Your task to perform on an android device: Add macbook air to the cart on walmart Image 0: 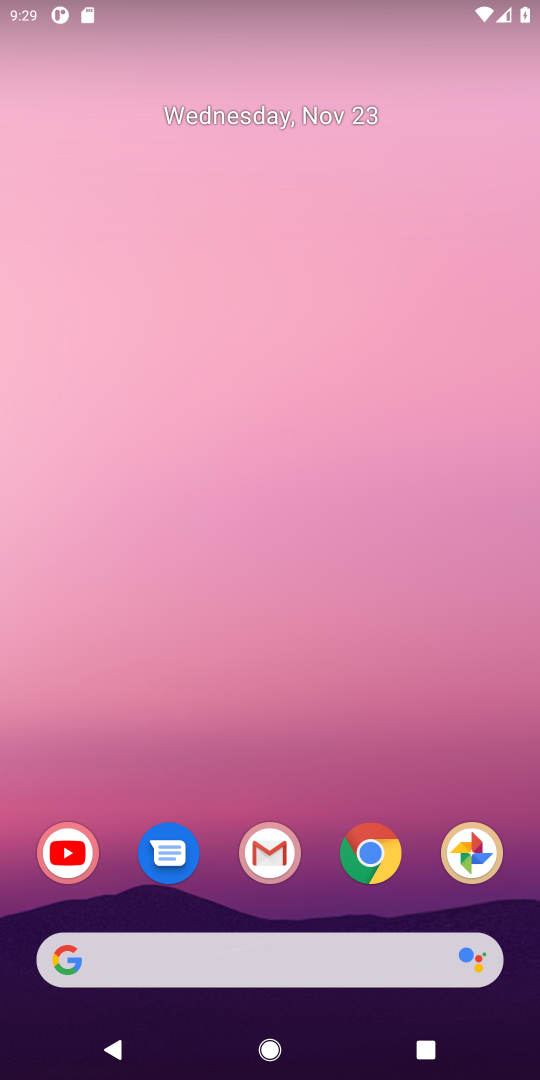
Step 0: click (373, 856)
Your task to perform on an android device: Add macbook air to the cart on walmart Image 1: 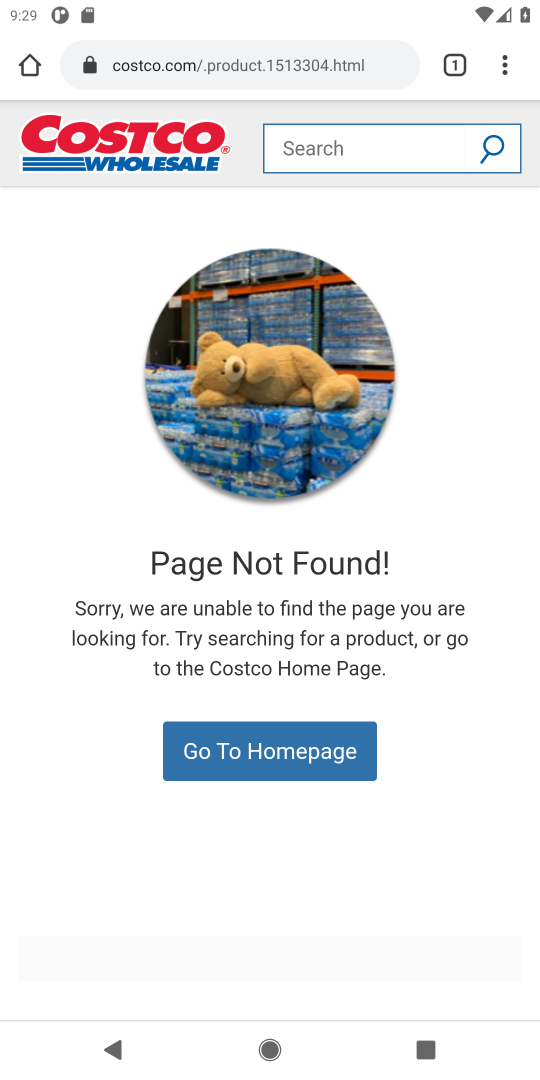
Step 1: click (178, 58)
Your task to perform on an android device: Add macbook air to the cart on walmart Image 2: 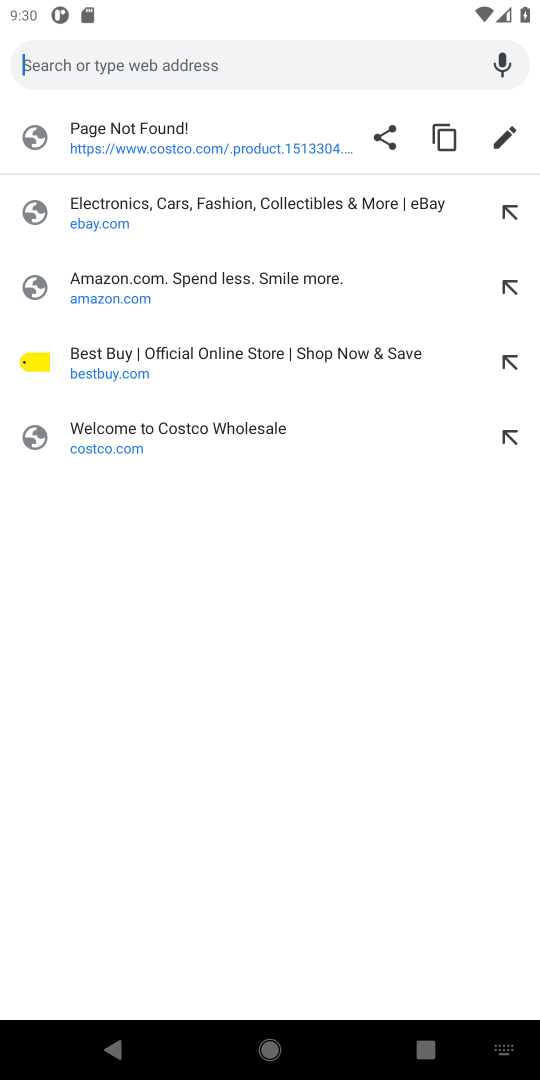
Step 2: click (60, 62)
Your task to perform on an android device: Add macbook air to the cart on walmart Image 3: 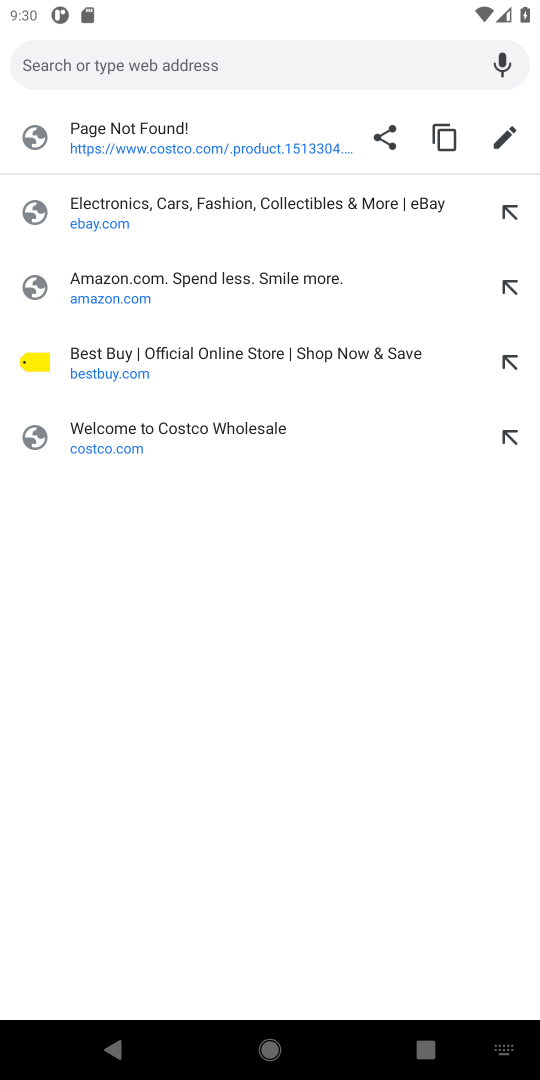
Step 3: type "walmart.com"
Your task to perform on an android device: Add macbook air to the cart on walmart Image 4: 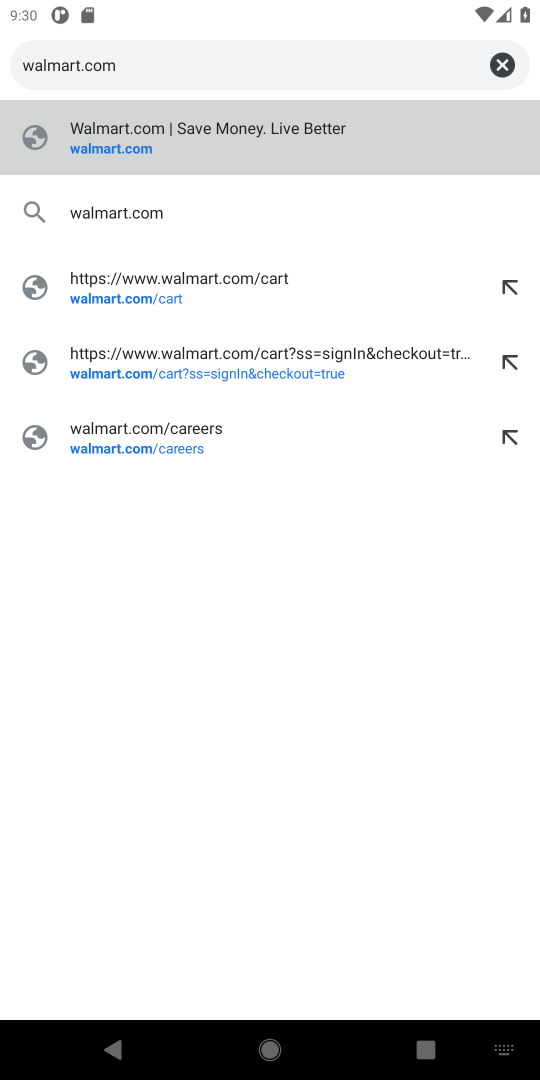
Step 4: click (96, 145)
Your task to perform on an android device: Add macbook air to the cart on walmart Image 5: 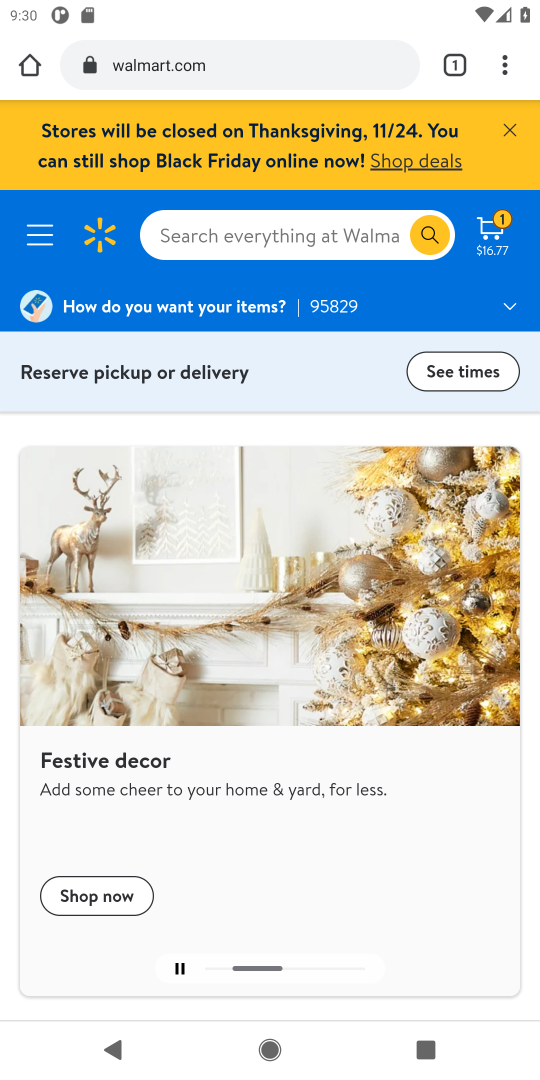
Step 5: click (238, 242)
Your task to perform on an android device: Add macbook air to the cart on walmart Image 6: 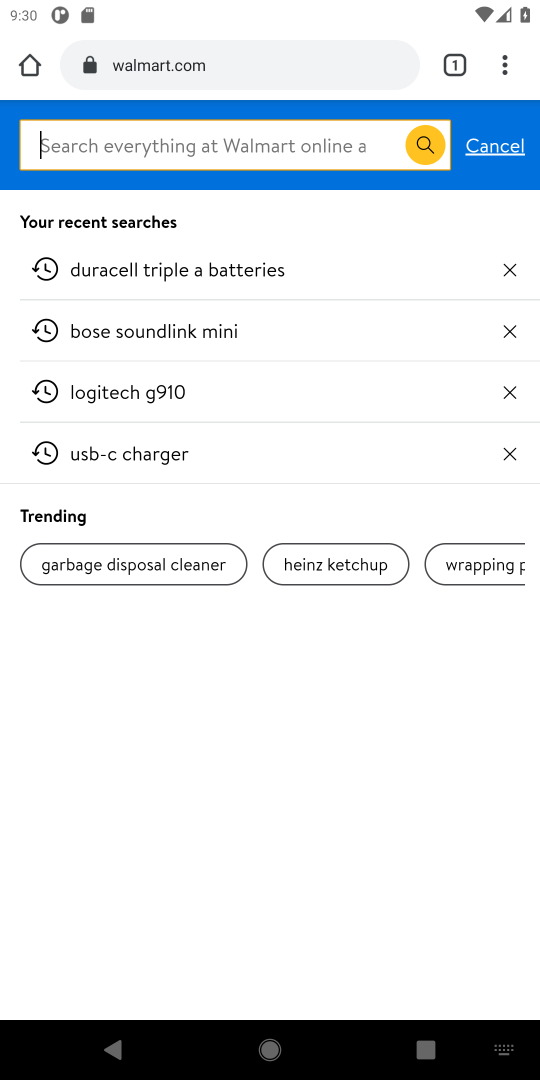
Step 6: type "macbook air"
Your task to perform on an android device: Add macbook air to the cart on walmart Image 7: 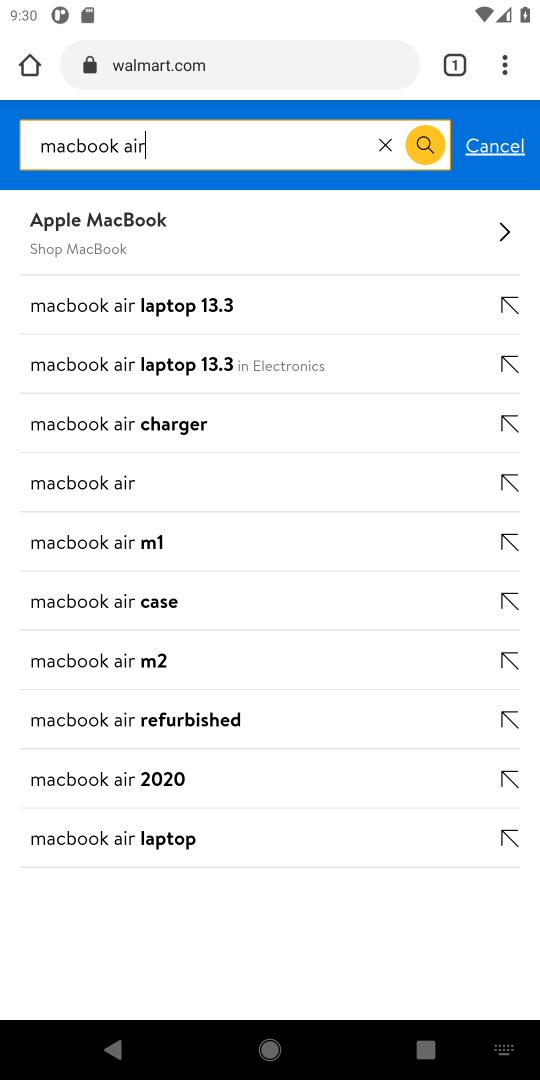
Step 7: click (81, 480)
Your task to perform on an android device: Add macbook air to the cart on walmart Image 8: 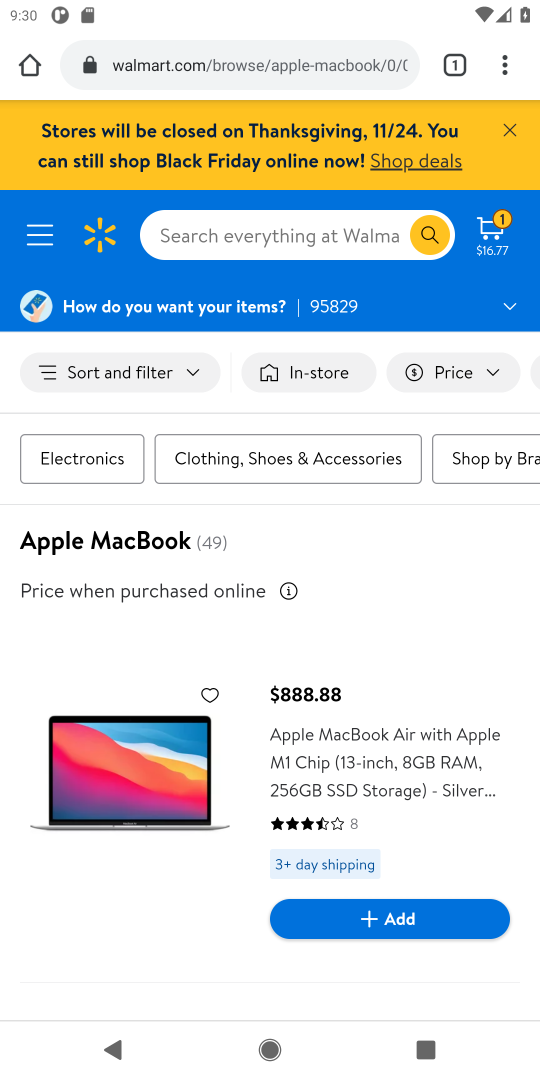
Step 8: click (380, 929)
Your task to perform on an android device: Add macbook air to the cart on walmart Image 9: 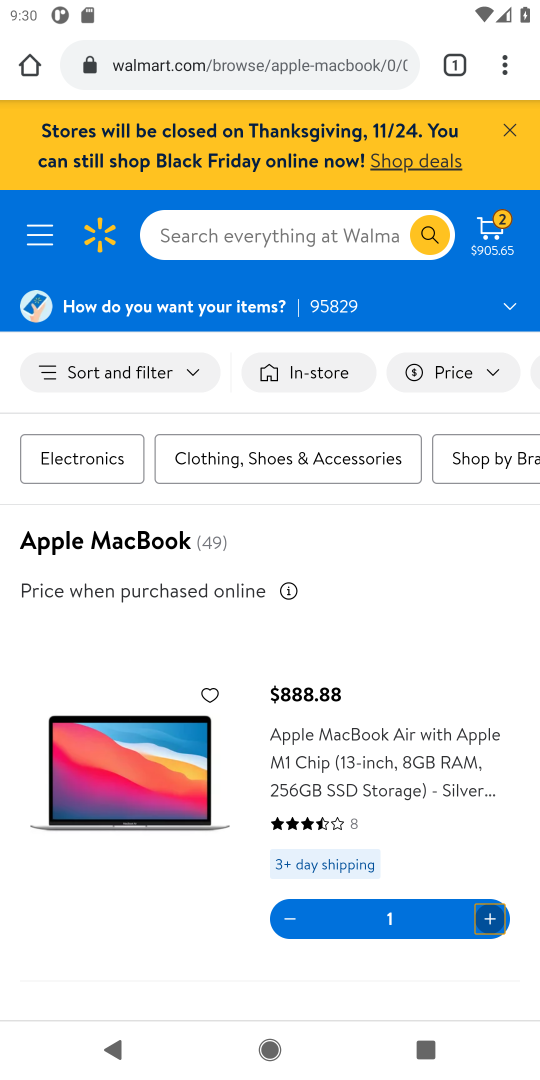
Step 9: task complete